Your task to perform on an android device: What is the news today? Image 0: 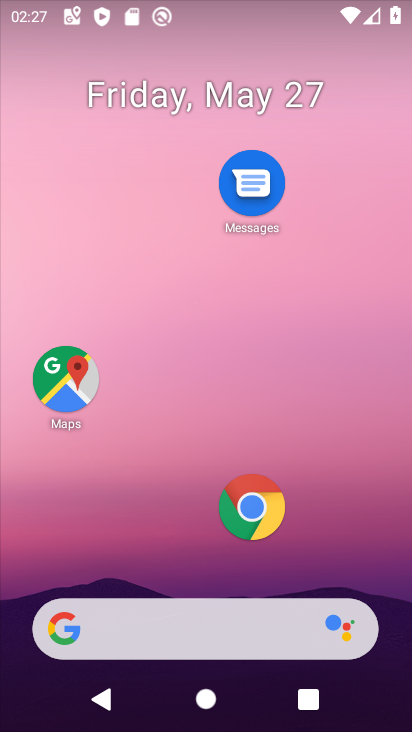
Step 0: drag from (179, 532) to (186, 144)
Your task to perform on an android device: What is the news today? Image 1: 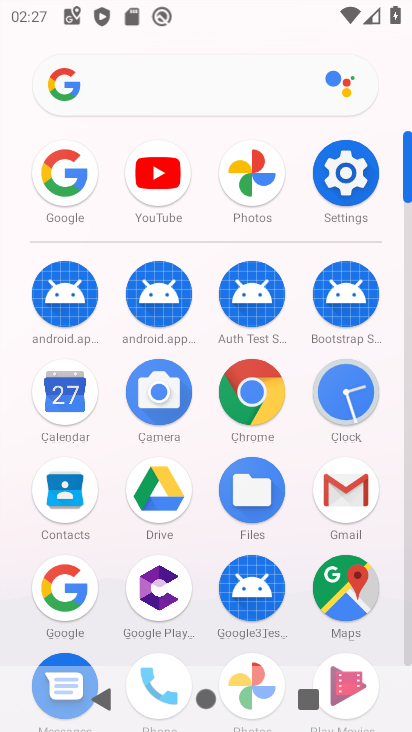
Step 1: click (70, 404)
Your task to perform on an android device: What is the news today? Image 2: 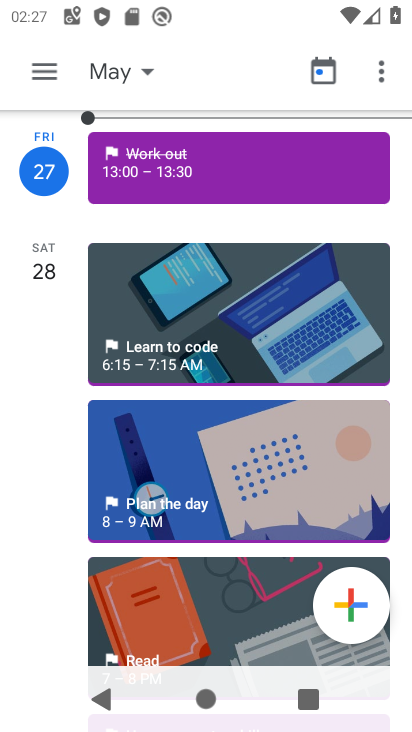
Step 2: click (140, 73)
Your task to perform on an android device: What is the news today? Image 3: 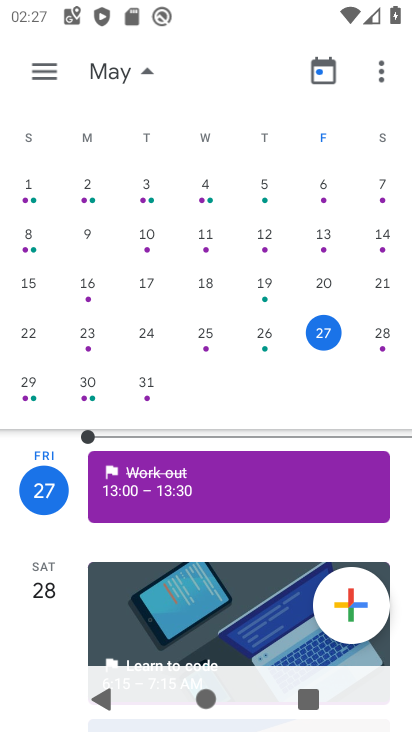
Step 3: click (329, 339)
Your task to perform on an android device: What is the news today? Image 4: 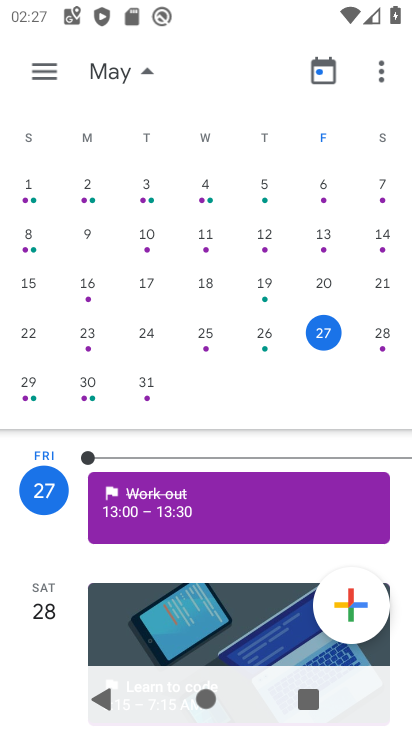
Step 4: task complete